Your task to perform on an android device: Turn on the flashlight Image 0: 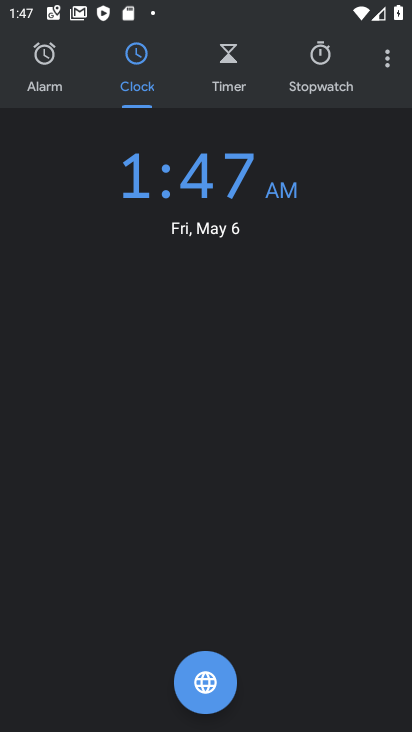
Step 0: press home button
Your task to perform on an android device: Turn on the flashlight Image 1: 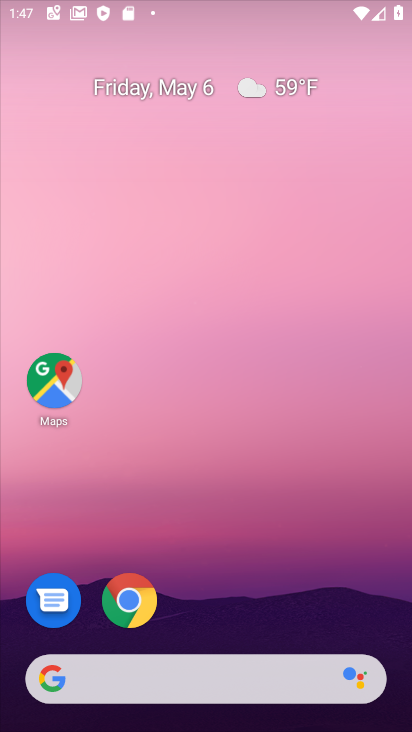
Step 1: drag from (264, 617) to (298, 41)
Your task to perform on an android device: Turn on the flashlight Image 2: 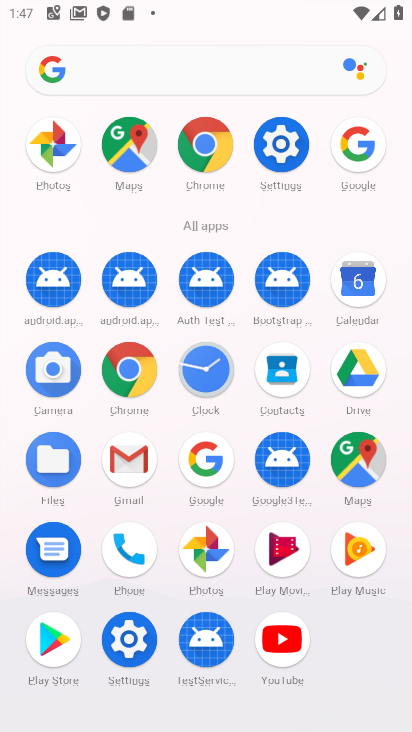
Step 2: click (282, 142)
Your task to perform on an android device: Turn on the flashlight Image 3: 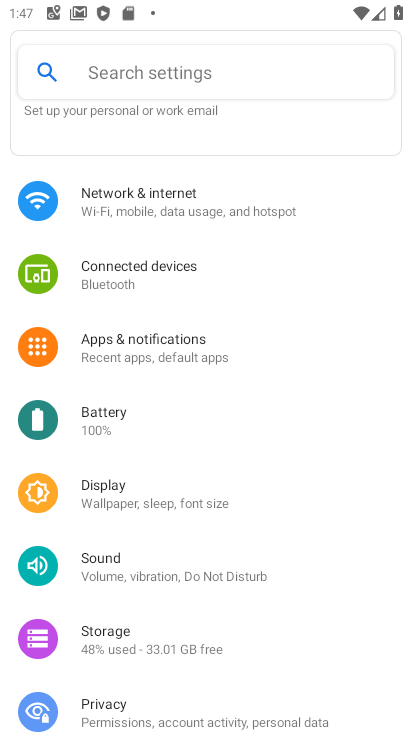
Step 3: click (179, 61)
Your task to perform on an android device: Turn on the flashlight Image 4: 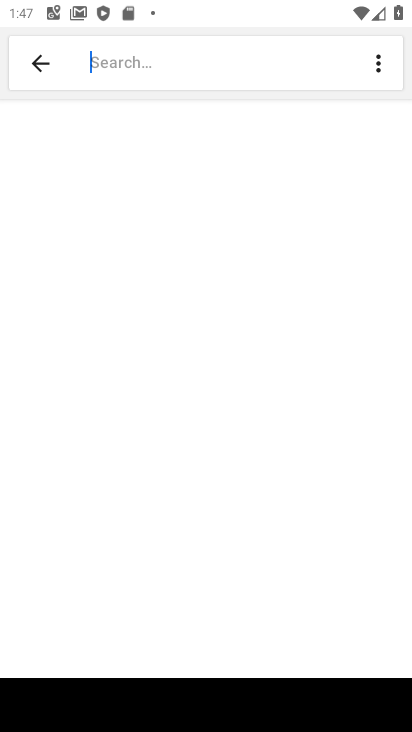
Step 4: type "flash"
Your task to perform on an android device: Turn on the flashlight Image 5: 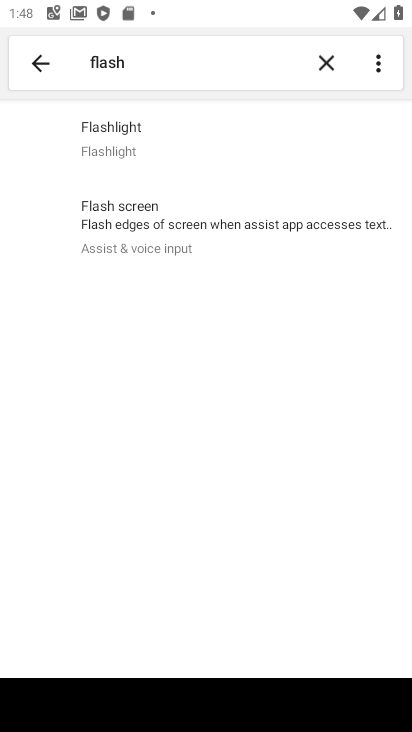
Step 5: task complete